Your task to perform on an android device: Open Youtube and go to "Your channel" Image 0: 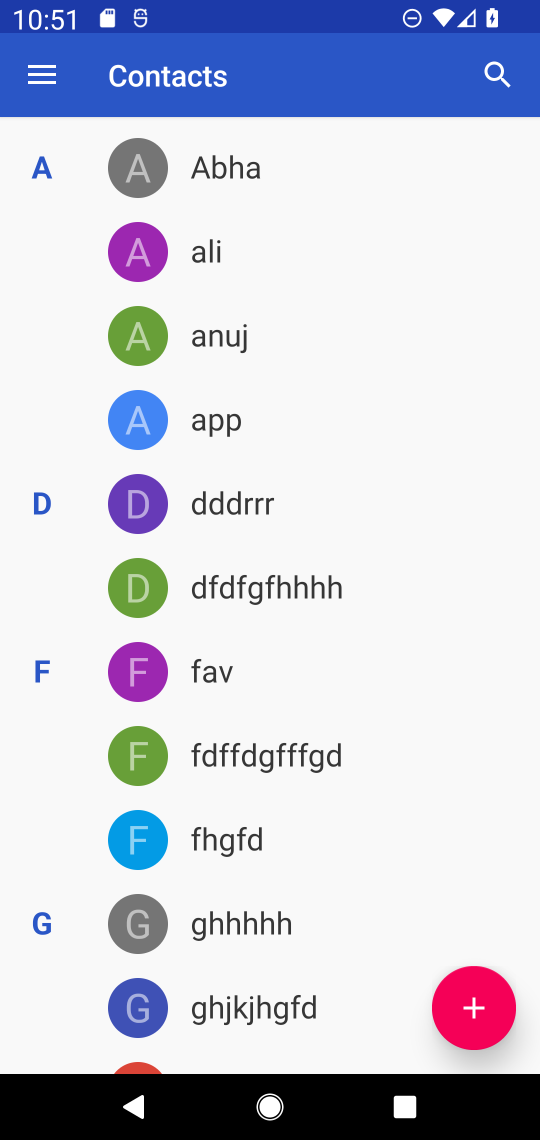
Step 0: press home button
Your task to perform on an android device: Open Youtube and go to "Your channel" Image 1: 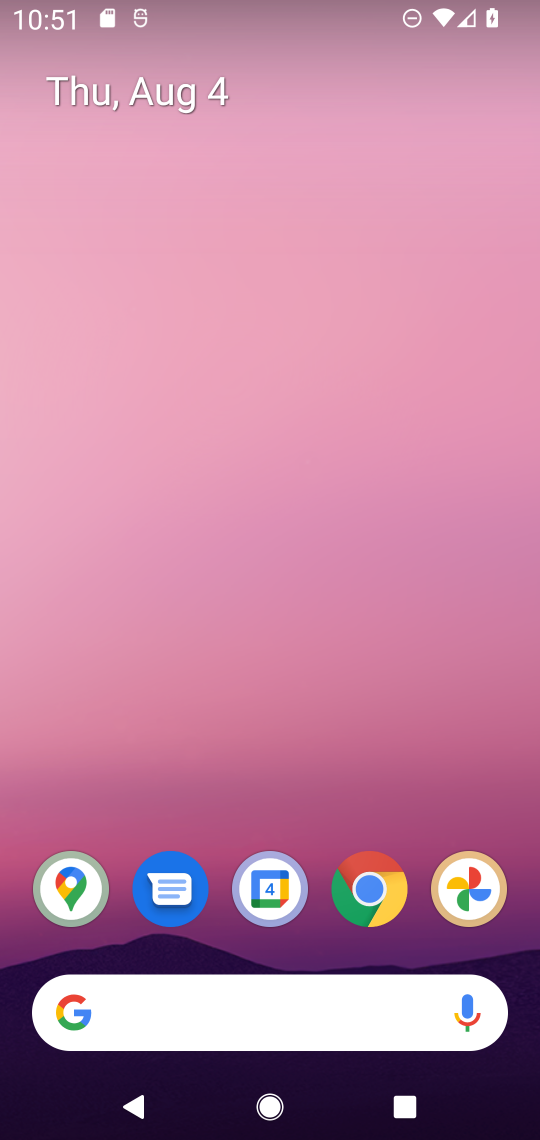
Step 1: drag from (393, 790) to (420, 226)
Your task to perform on an android device: Open Youtube and go to "Your channel" Image 2: 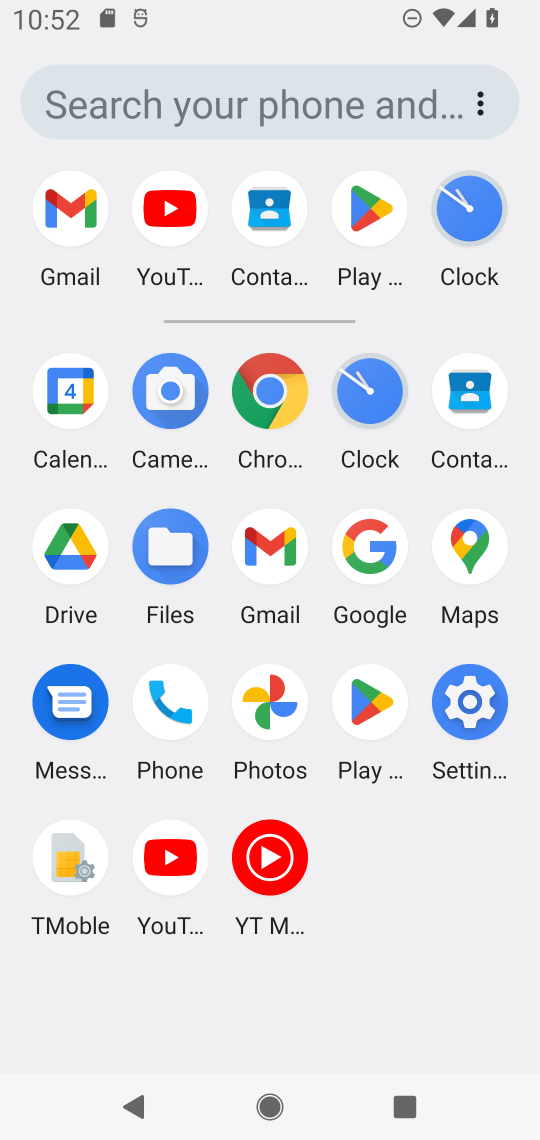
Step 2: click (173, 867)
Your task to perform on an android device: Open Youtube and go to "Your channel" Image 3: 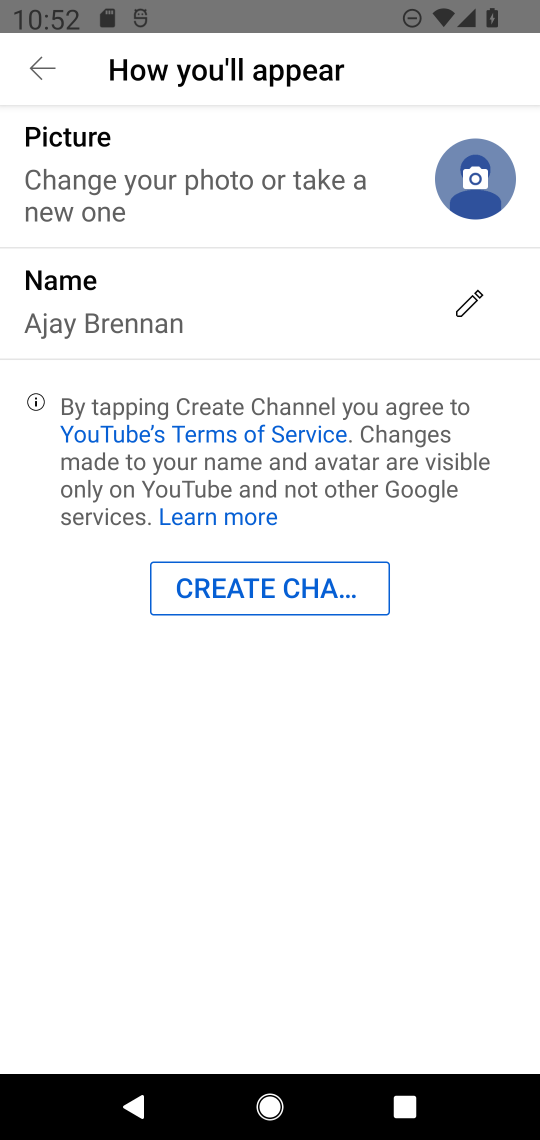
Step 3: task complete